Your task to perform on an android device: turn smart compose on in the gmail app Image 0: 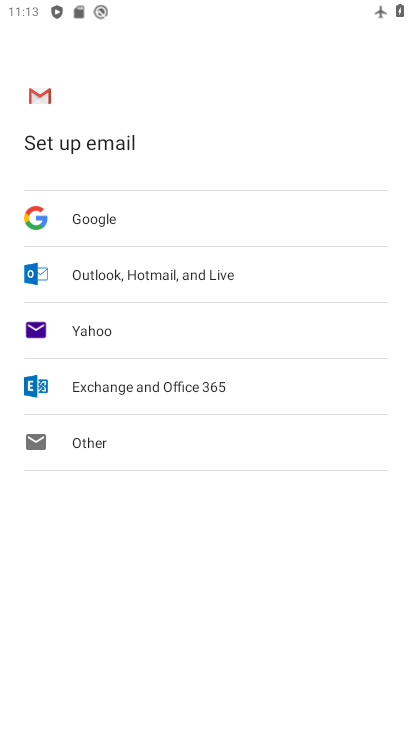
Step 0: press home button
Your task to perform on an android device: turn smart compose on in the gmail app Image 1: 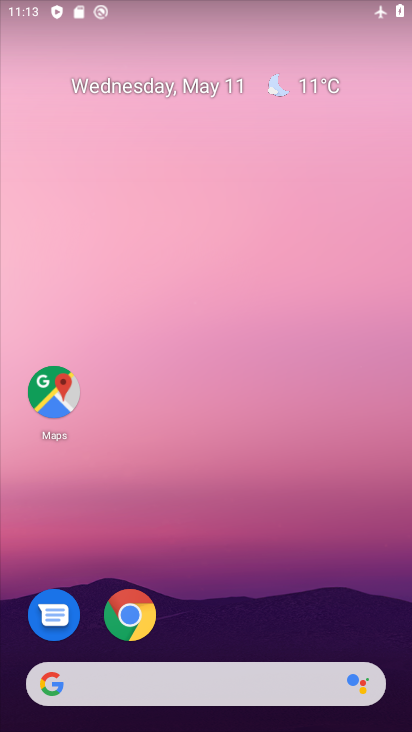
Step 1: drag from (245, 534) to (201, 89)
Your task to perform on an android device: turn smart compose on in the gmail app Image 2: 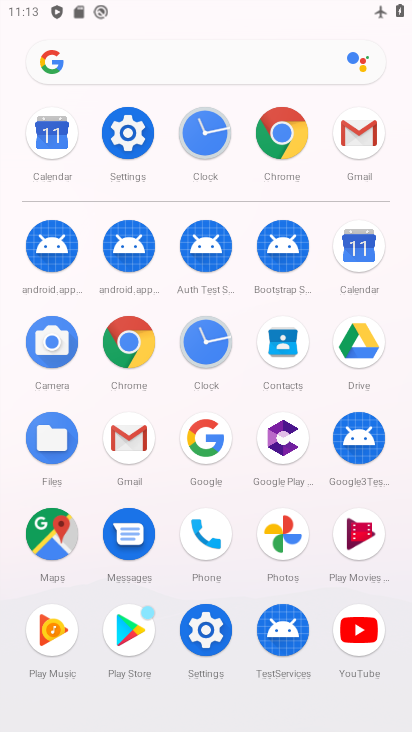
Step 2: click (366, 145)
Your task to perform on an android device: turn smart compose on in the gmail app Image 3: 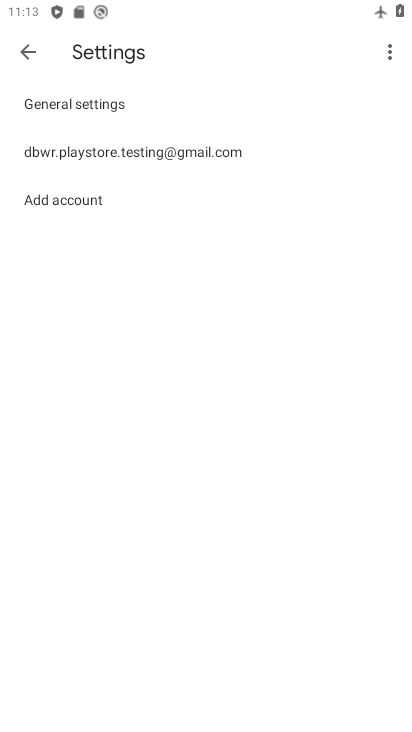
Step 3: click (152, 147)
Your task to perform on an android device: turn smart compose on in the gmail app Image 4: 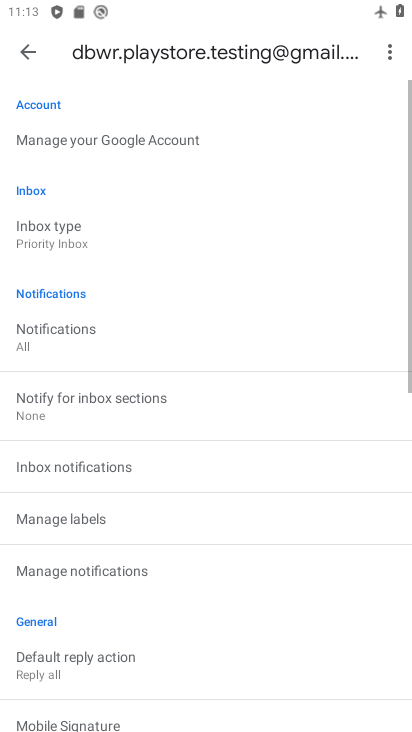
Step 4: task complete